Your task to perform on an android device: turn off improve location accuracy Image 0: 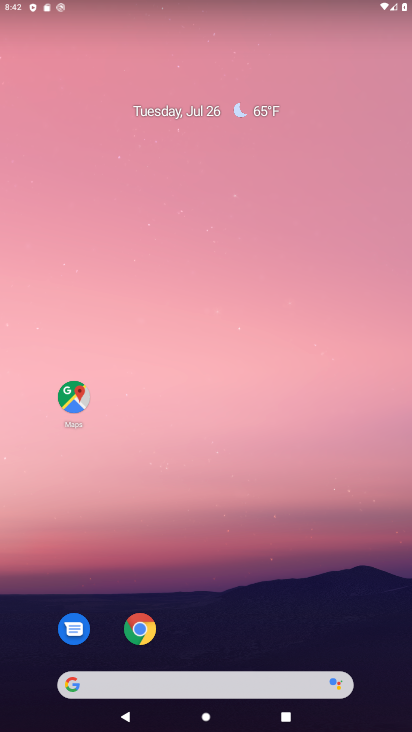
Step 0: drag from (350, 570) to (291, 78)
Your task to perform on an android device: turn off improve location accuracy Image 1: 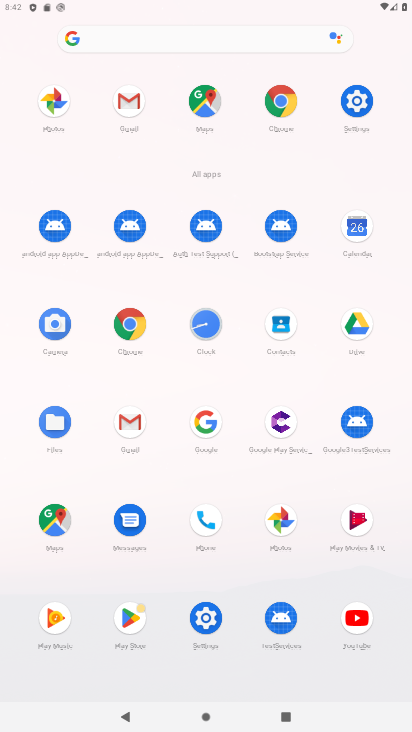
Step 1: click (352, 105)
Your task to perform on an android device: turn off improve location accuracy Image 2: 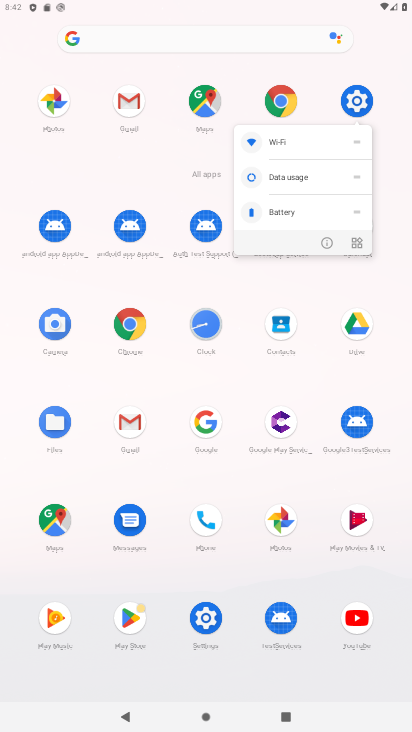
Step 2: click (355, 95)
Your task to perform on an android device: turn off improve location accuracy Image 3: 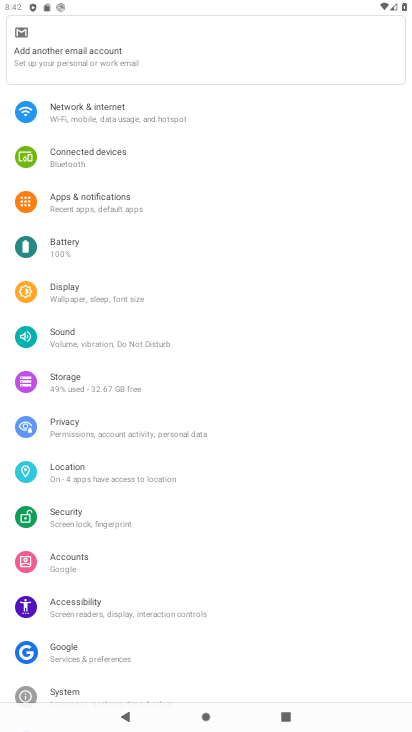
Step 3: click (113, 476)
Your task to perform on an android device: turn off improve location accuracy Image 4: 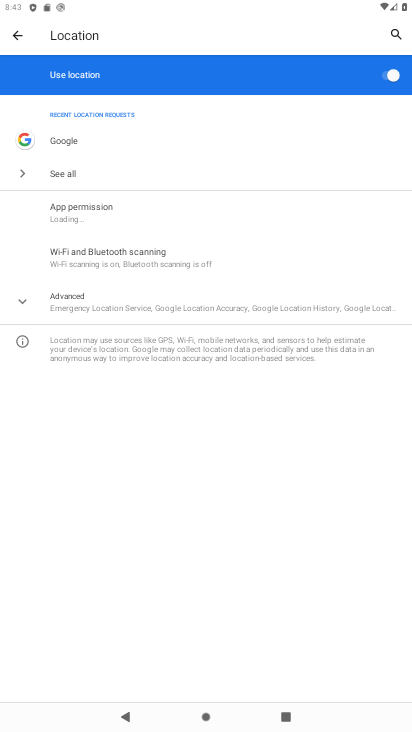
Step 4: click (97, 304)
Your task to perform on an android device: turn off improve location accuracy Image 5: 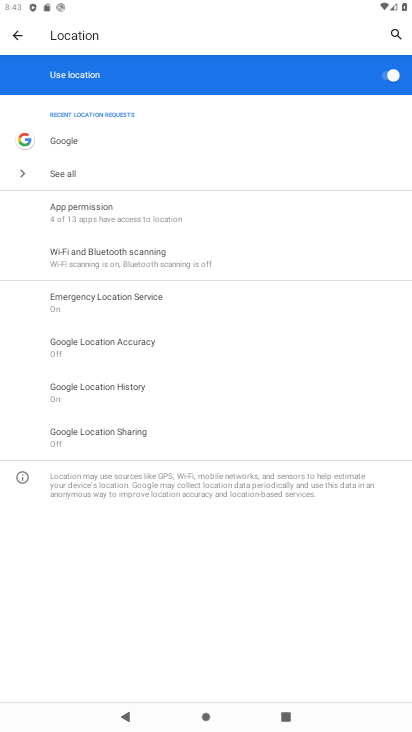
Step 5: click (131, 355)
Your task to perform on an android device: turn off improve location accuracy Image 6: 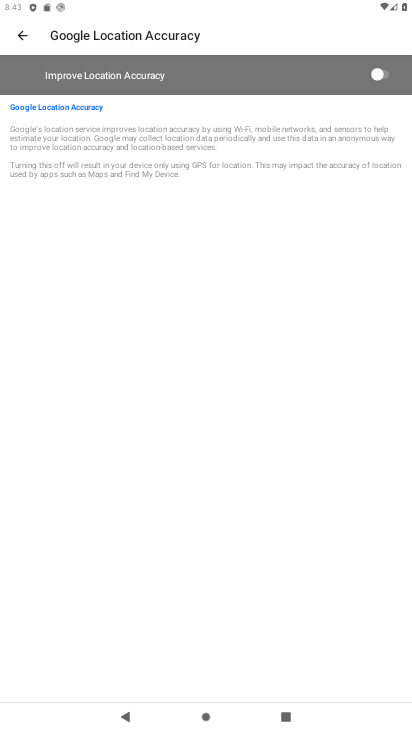
Step 6: task complete